Your task to perform on an android device: Go to wifi settings Image 0: 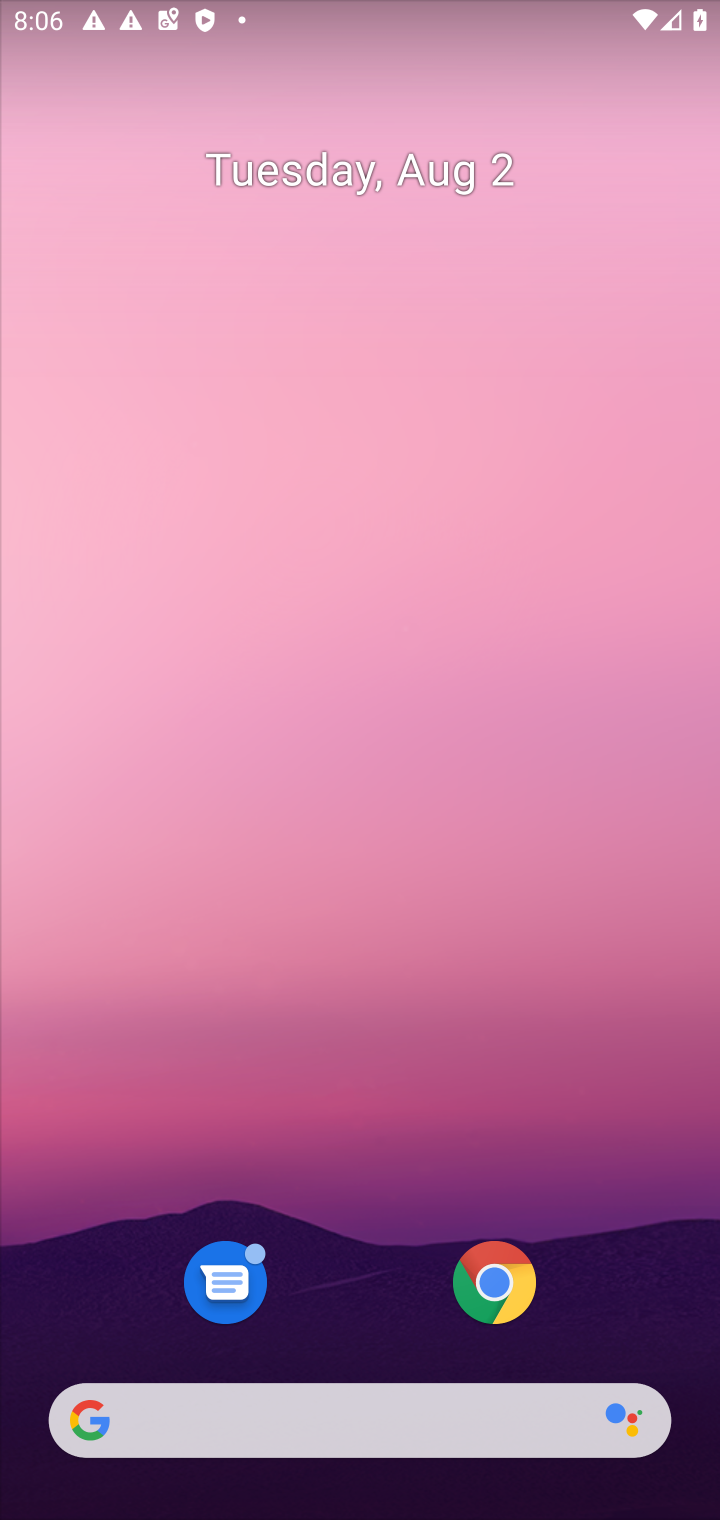
Step 0: drag from (369, 1068) to (464, 15)
Your task to perform on an android device: Go to wifi settings Image 1: 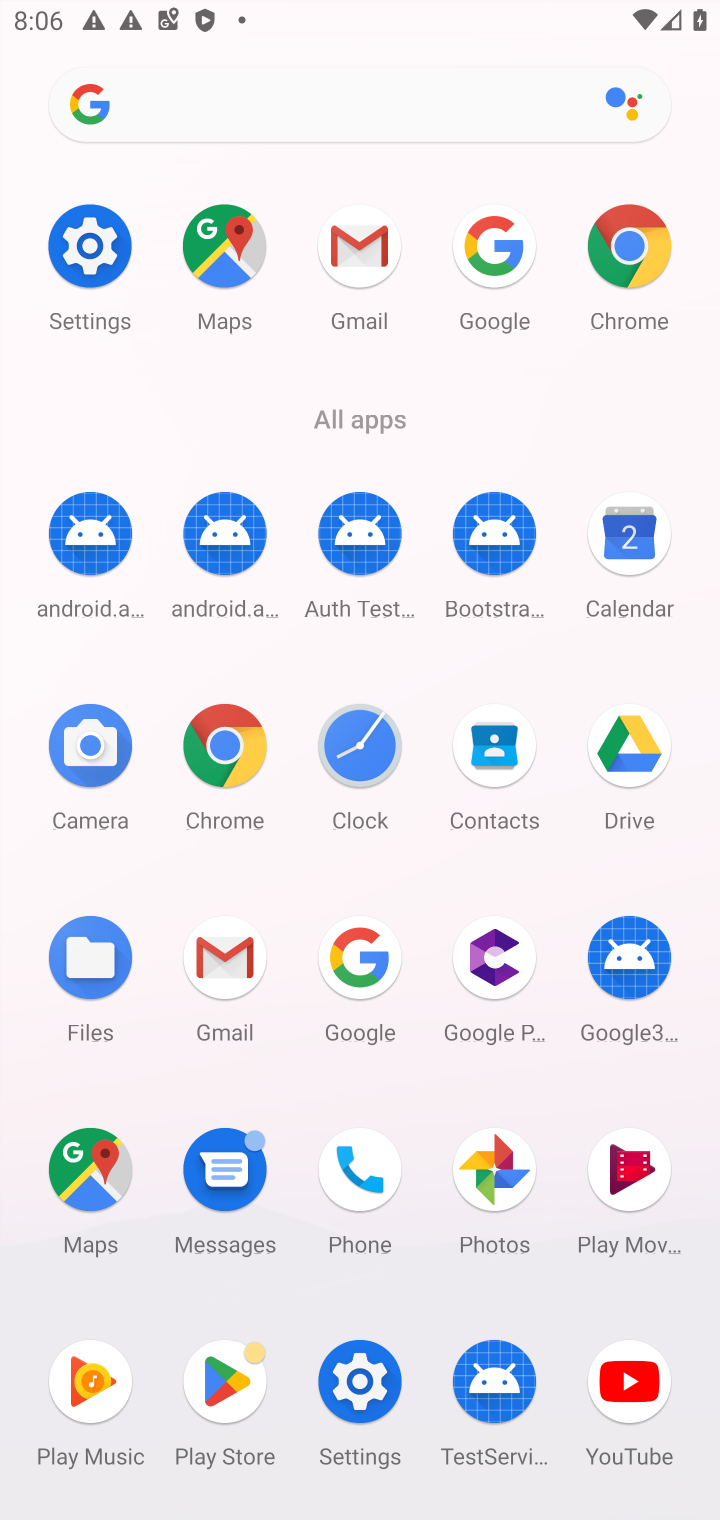
Step 1: click (82, 276)
Your task to perform on an android device: Go to wifi settings Image 2: 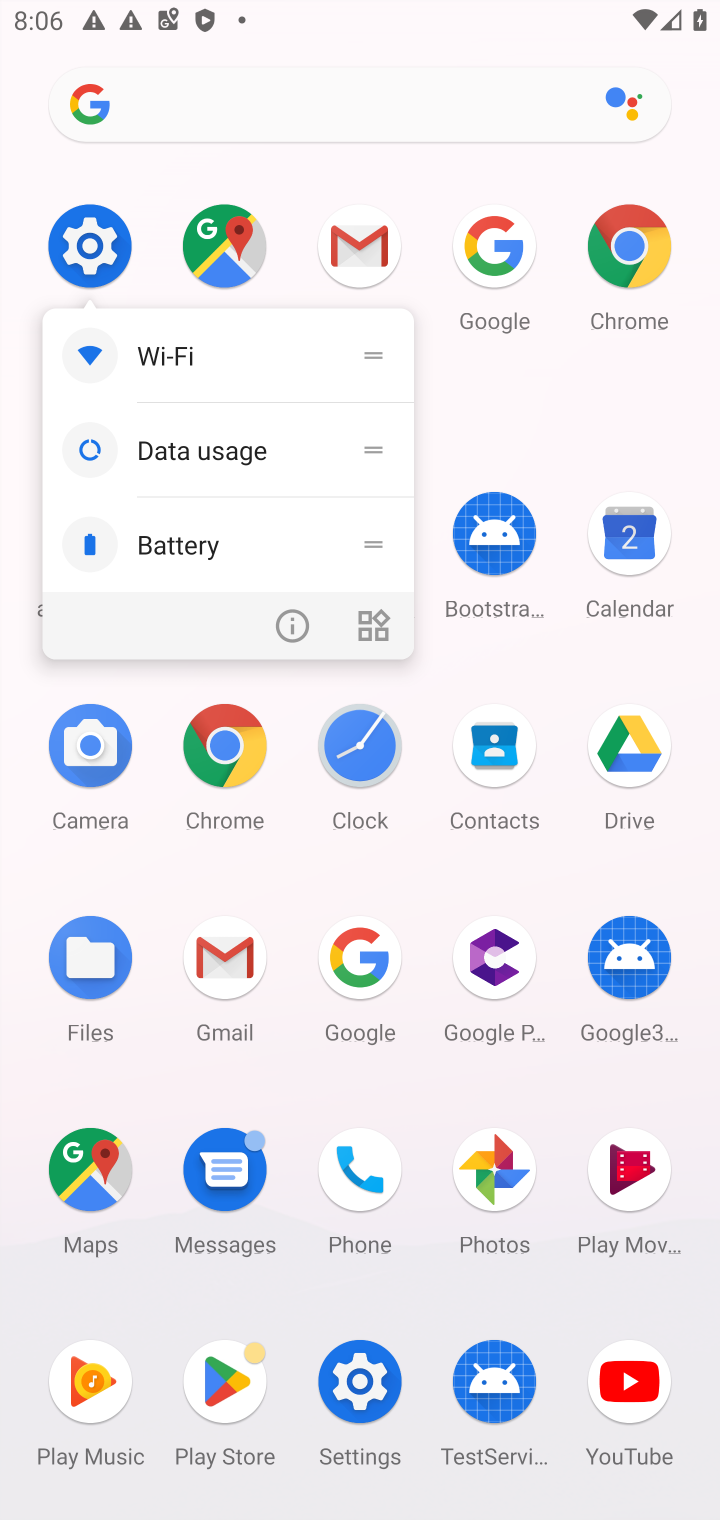
Step 2: click (85, 259)
Your task to perform on an android device: Go to wifi settings Image 3: 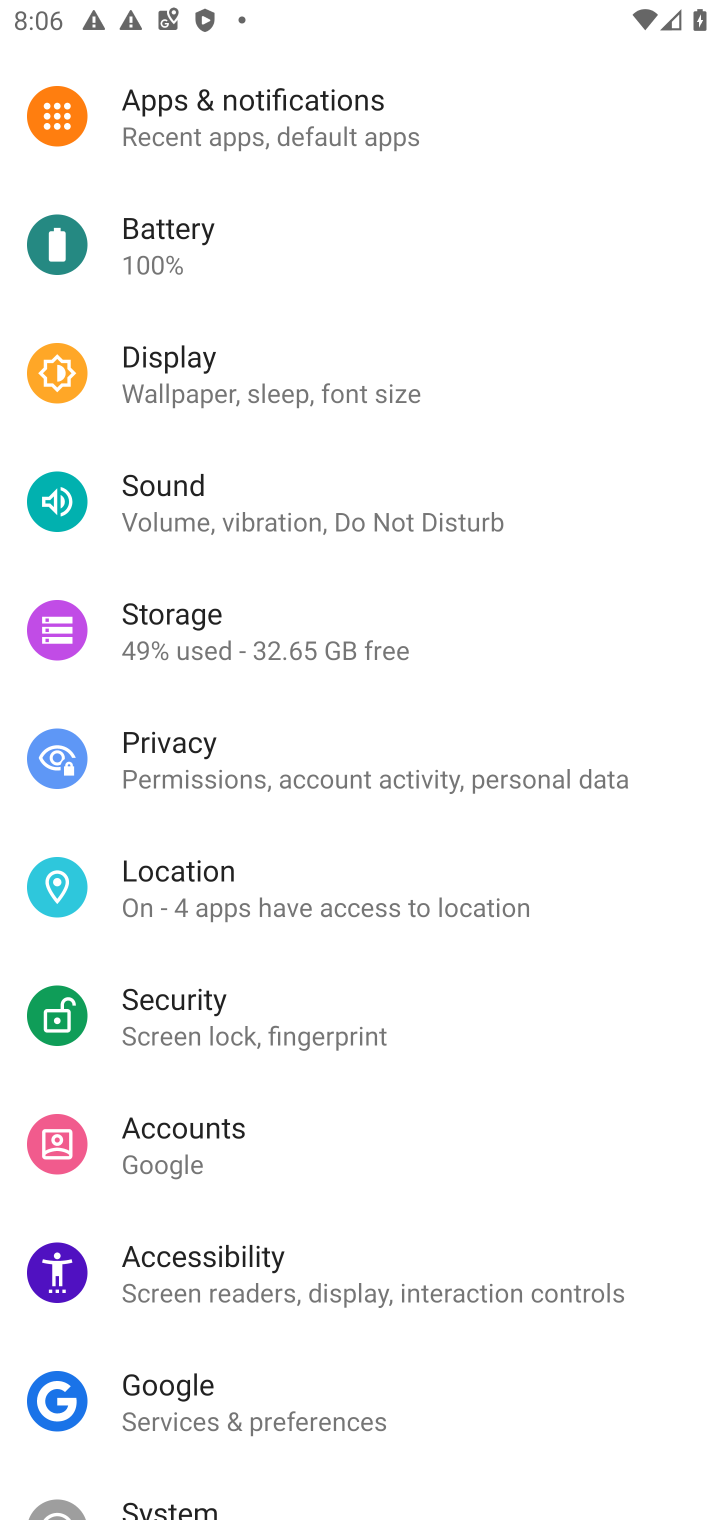
Step 3: drag from (495, 396) to (564, 1368)
Your task to perform on an android device: Go to wifi settings Image 4: 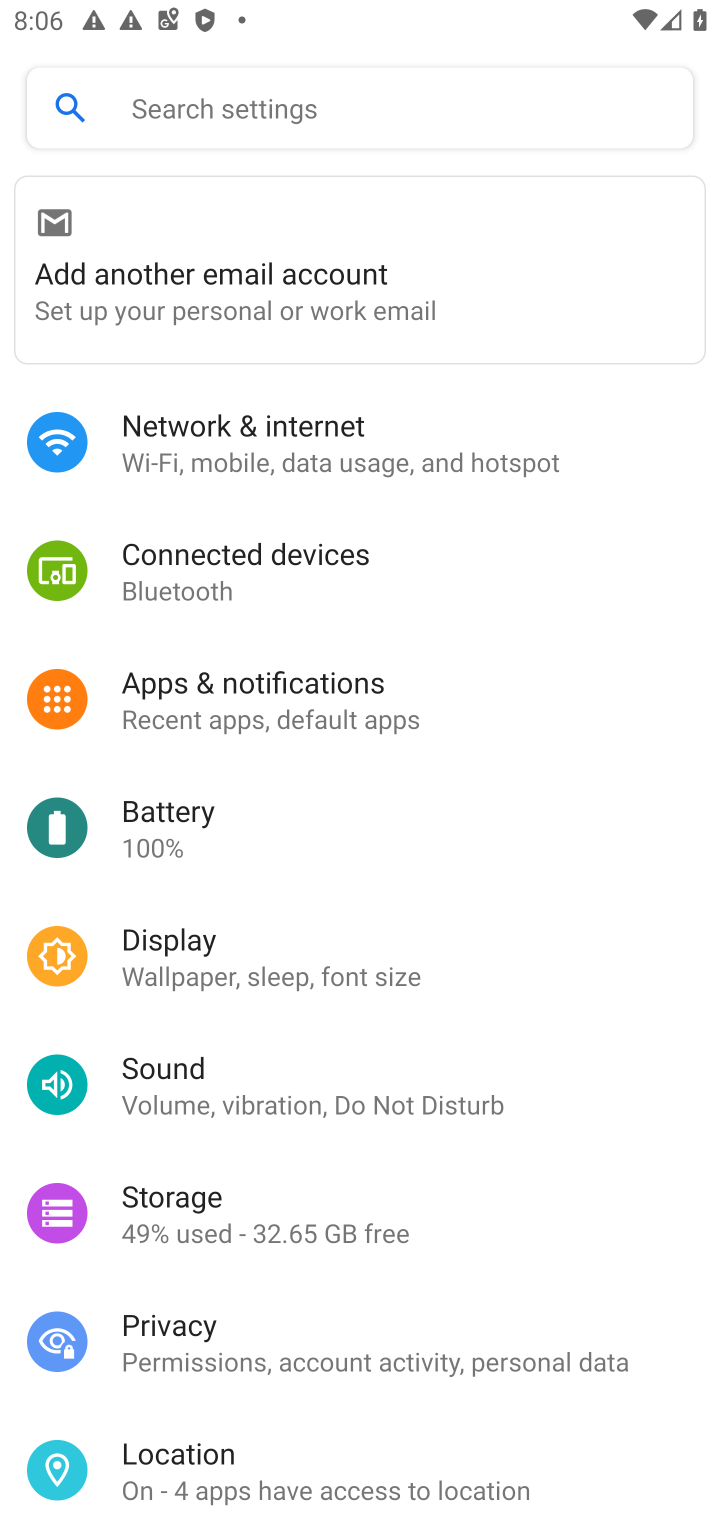
Step 4: click (293, 437)
Your task to perform on an android device: Go to wifi settings Image 5: 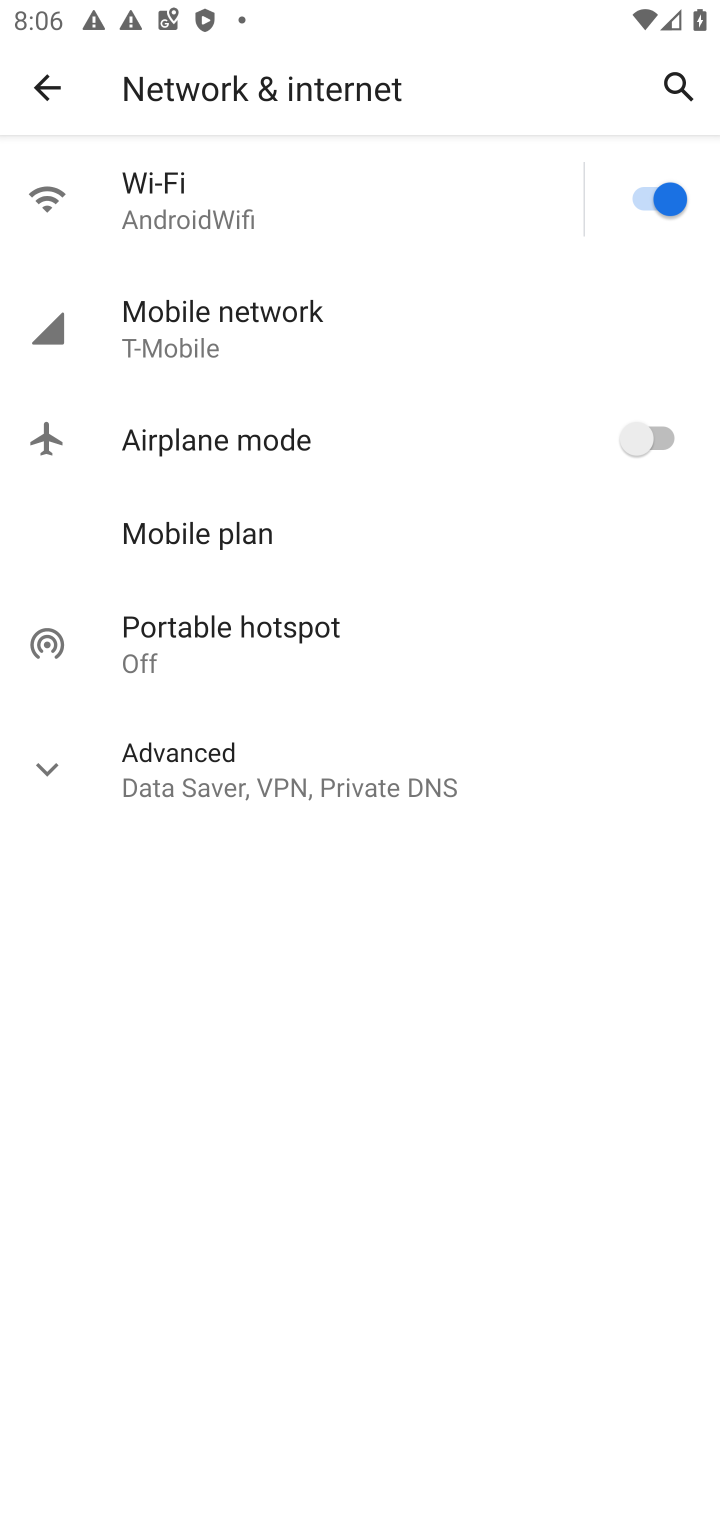
Step 5: click (168, 189)
Your task to perform on an android device: Go to wifi settings Image 6: 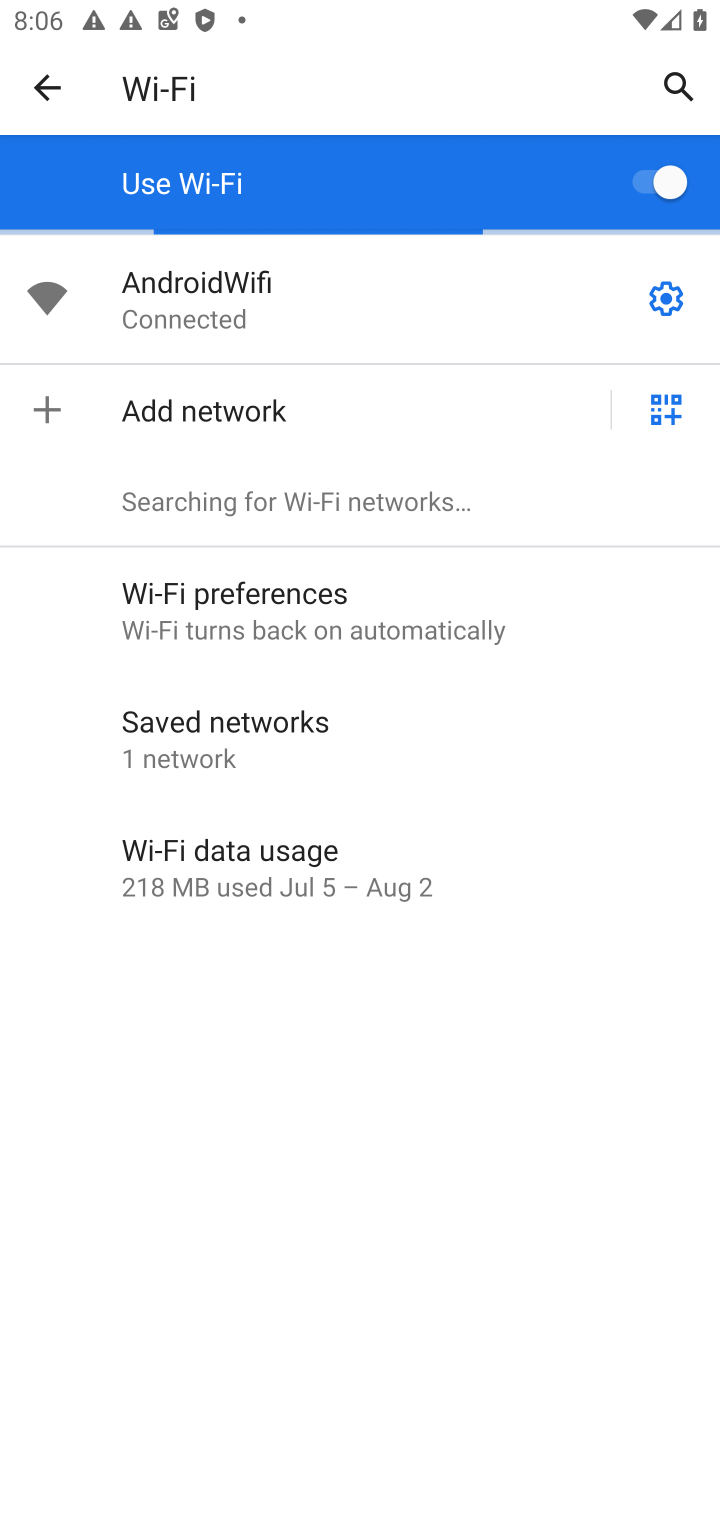
Step 6: task complete